Your task to perform on an android device: Open Google Image 0: 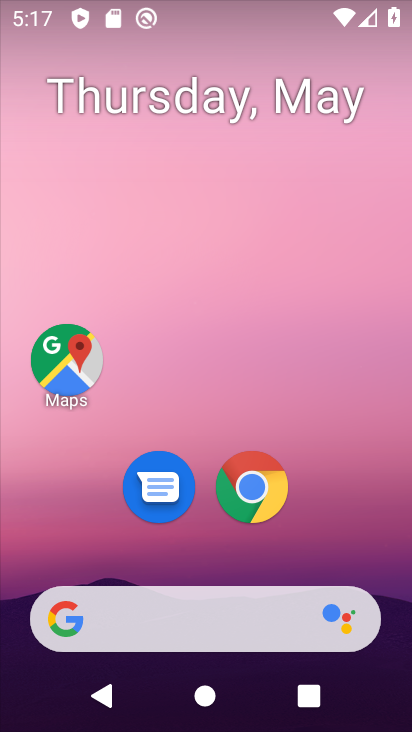
Step 0: click (178, 616)
Your task to perform on an android device: Open Google Image 1: 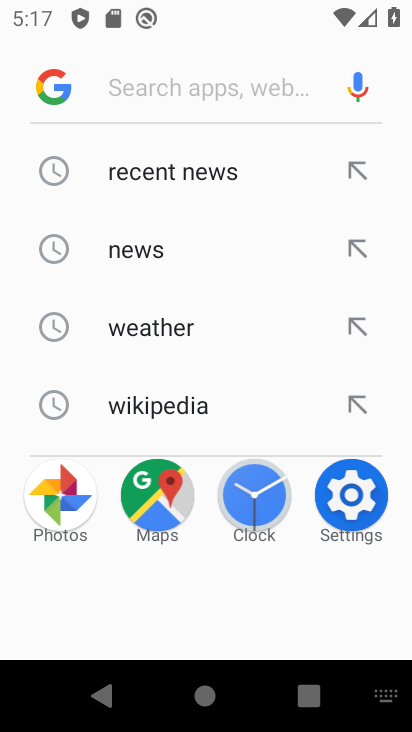
Step 1: click (46, 80)
Your task to perform on an android device: Open Google Image 2: 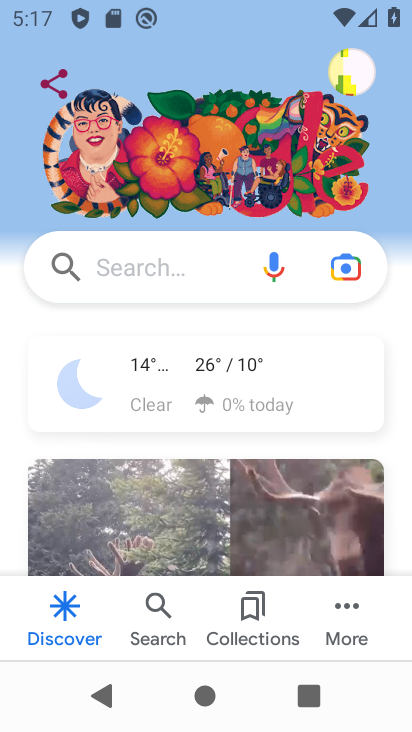
Step 2: task complete